Your task to perform on an android device: toggle priority inbox in the gmail app Image 0: 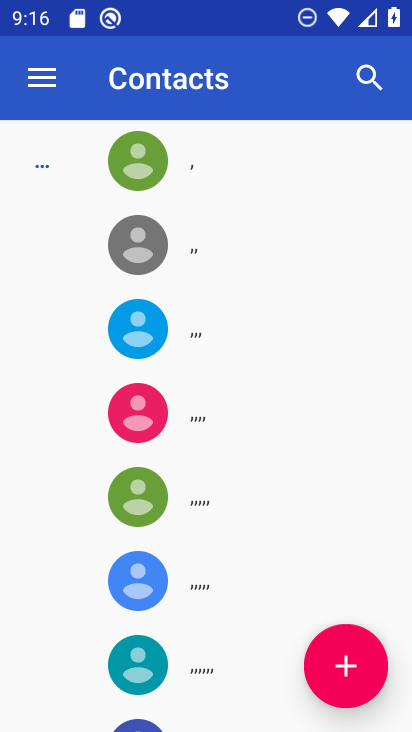
Step 0: press home button
Your task to perform on an android device: toggle priority inbox in the gmail app Image 1: 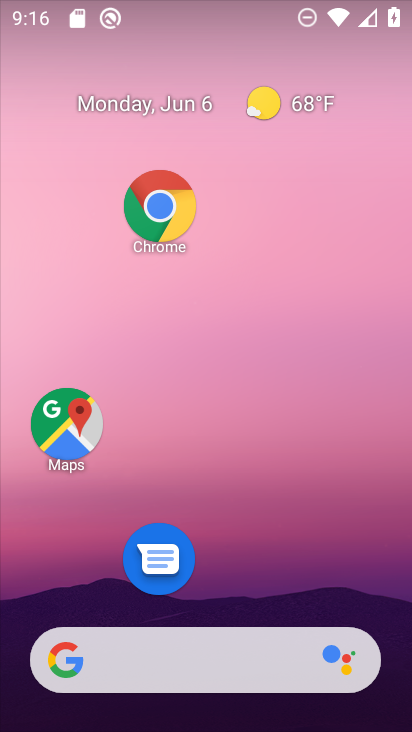
Step 1: drag from (246, 565) to (153, 118)
Your task to perform on an android device: toggle priority inbox in the gmail app Image 2: 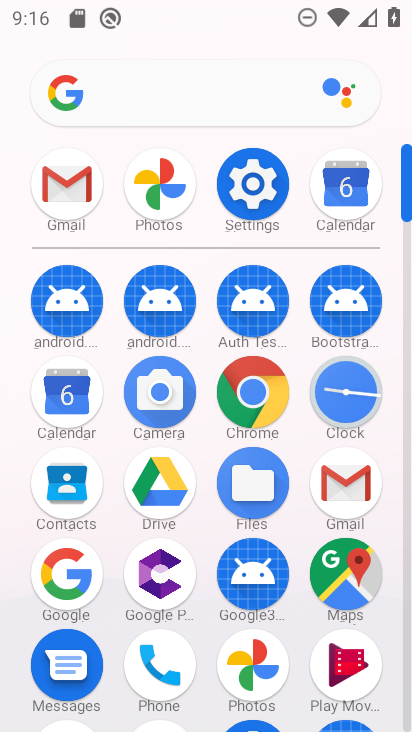
Step 2: click (345, 501)
Your task to perform on an android device: toggle priority inbox in the gmail app Image 3: 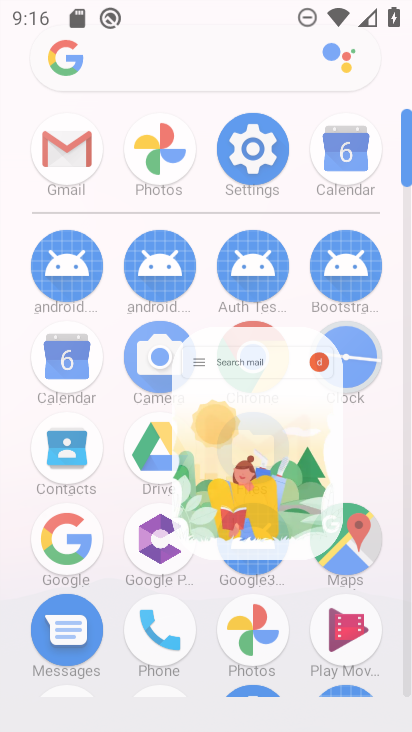
Step 3: click (350, 487)
Your task to perform on an android device: toggle priority inbox in the gmail app Image 4: 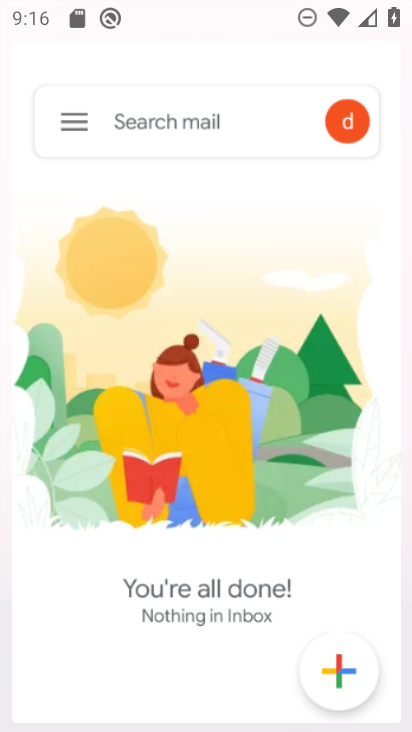
Step 4: click (350, 487)
Your task to perform on an android device: toggle priority inbox in the gmail app Image 5: 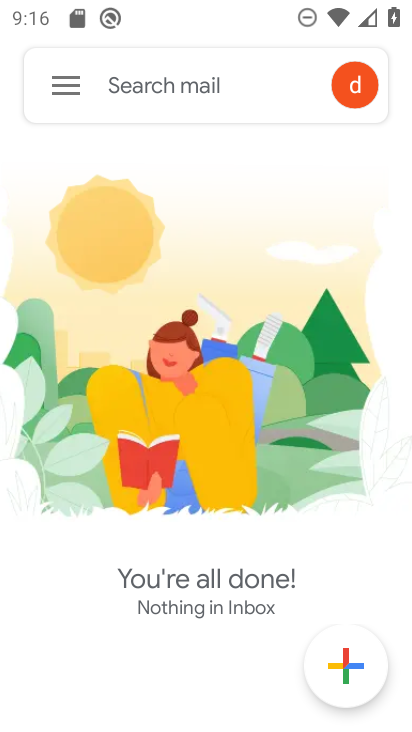
Step 5: click (351, 487)
Your task to perform on an android device: toggle priority inbox in the gmail app Image 6: 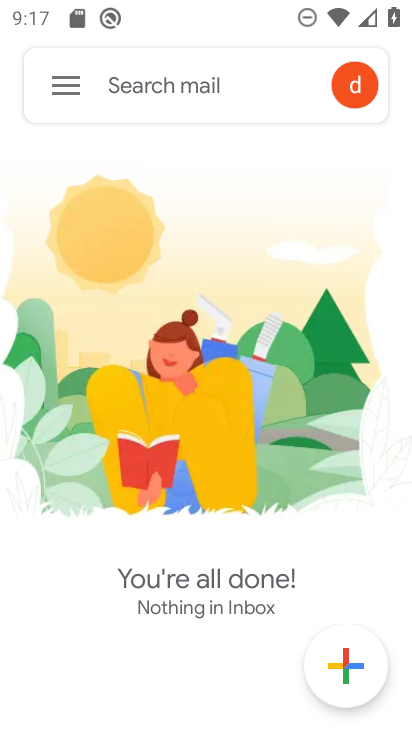
Step 6: click (72, 81)
Your task to perform on an android device: toggle priority inbox in the gmail app Image 7: 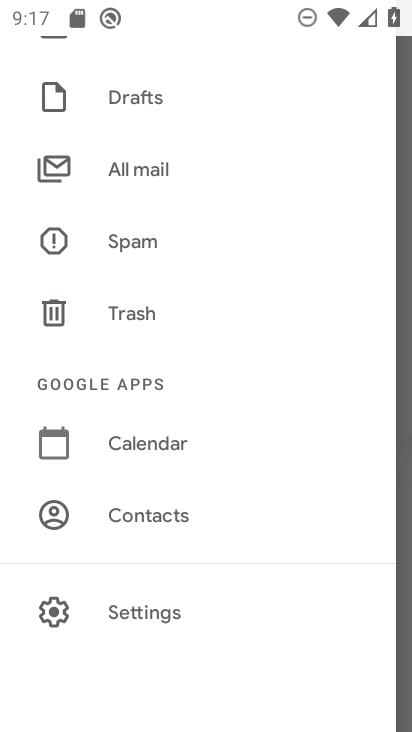
Step 7: click (136, 612)
Your task to perform on an android device: toggle priority inbox in the gmail app Image 8: 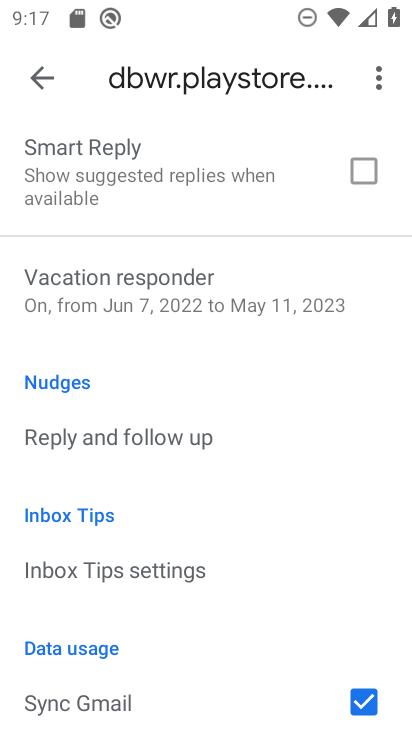
Step 8: drag from (123, 536) to (157, 202)
Your task to perform on an android device: toggle priority inbox in the gmail app Image 9: 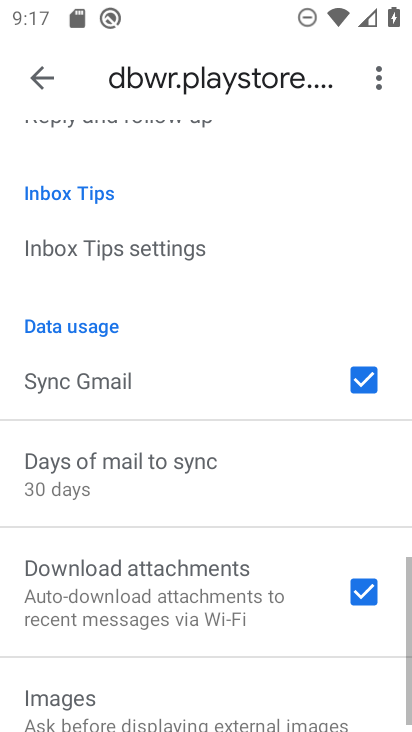
Step 9: drag from (153, 458) to (146, 242)
Your task to perform on an android device: toggle priority inbox in the gmail app Image 10: 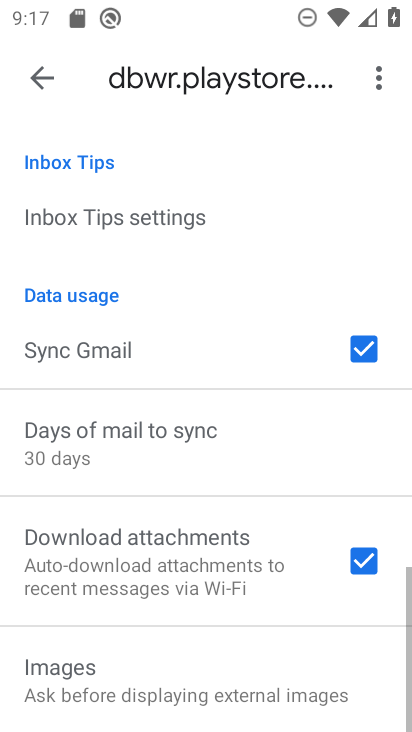
Step 10: drag from (146, 198) to (169, 563)
Your task to perform on an android device: toggle priority inbox in the gmail app Image 11: 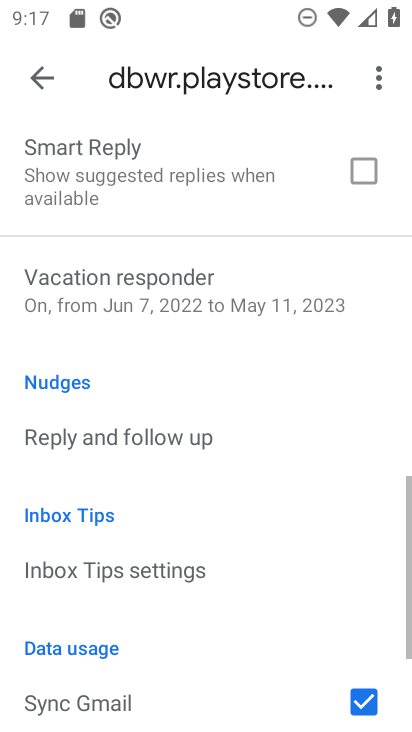
Step 11: drag from (152, 246) to (141, 533)
Your task to perform on an android device: toggle priority inbox in the gmail app Image 12: 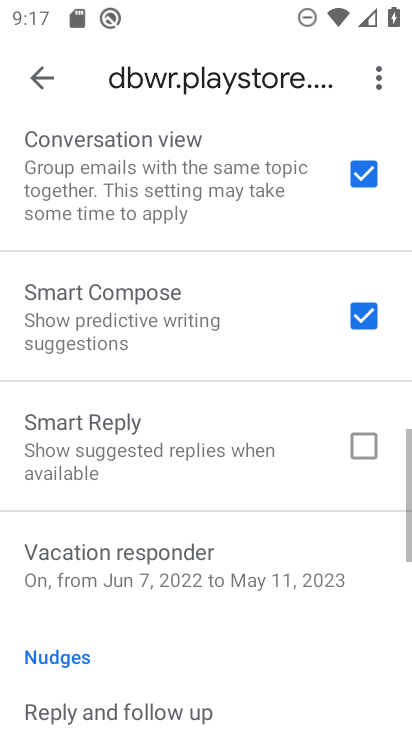
Step 12: drag from (133, 324) to (133, 616)
Your task to perform on an android device: toggle priority inbox in the gmail app Image 13: 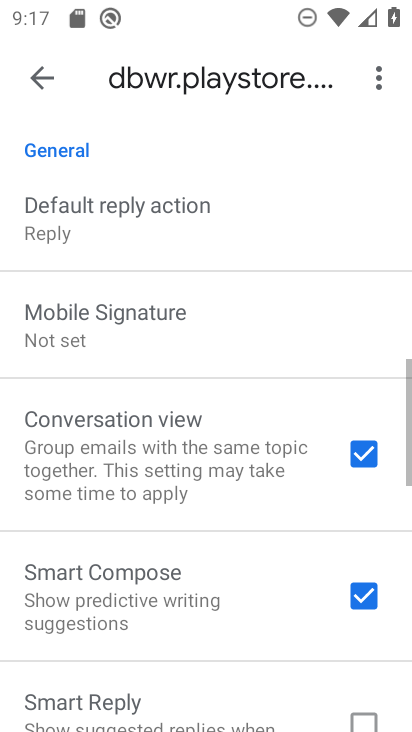
Step 13: drag from (147, 289) to (145, 600)
Your task to perform on an android device: toggle priority inbox in the gmail app Image 14: 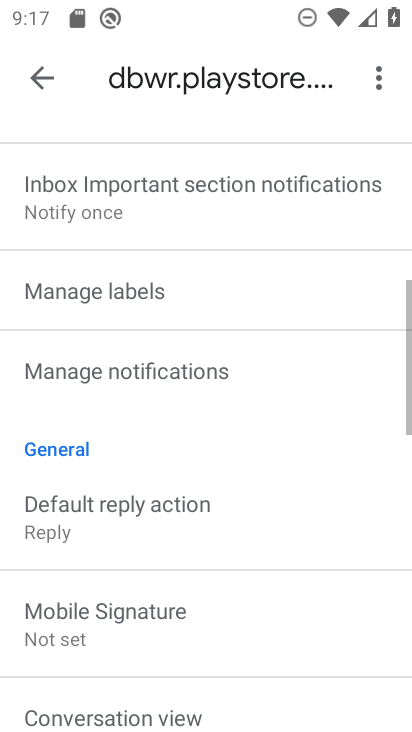
Step 14: drag from (145, 491) to (141, 640)
Your task to perform on an android device: toggle priority inbox in the gmail app Image 15: 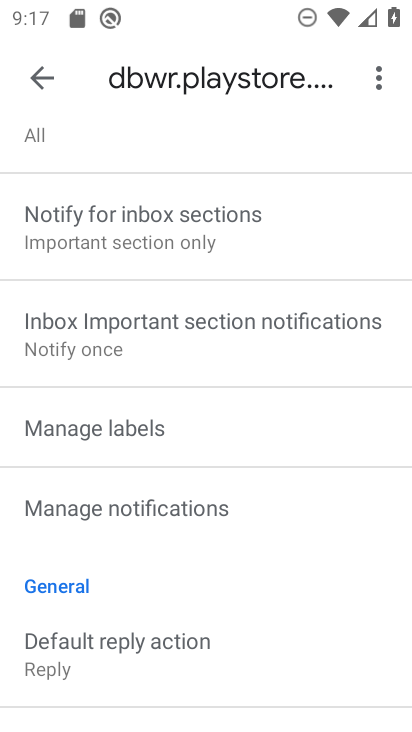
Step 15: drag from (109, 257) to (160, 566)
Your task to perform on an android device: toggle priority inbox in the gmail app Image 16: 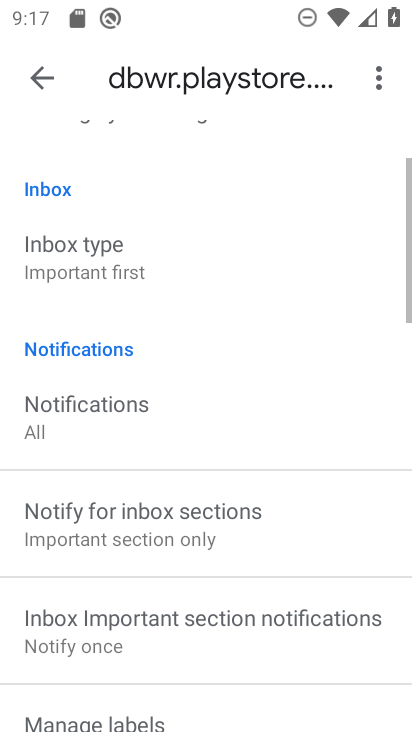
Step 16: drag from (122, 235) to (199, 636)
Your task to perform on an android device: toggle priority inbox in the gmail app Image 17: 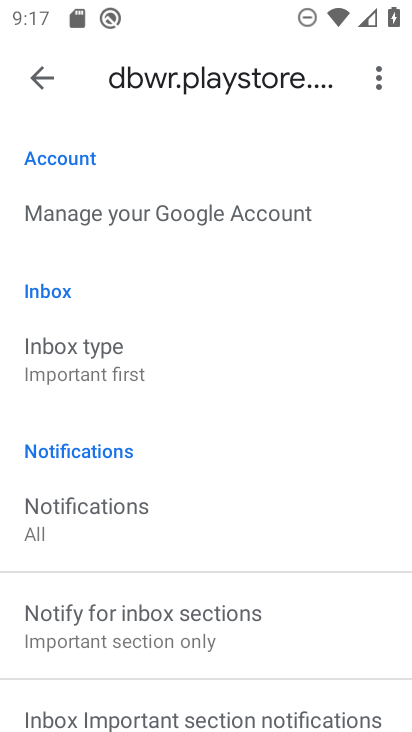
Step 17: click (90, 355)
Your task to perform on an android device: toggle priority inbox in the gmail app Image 18: 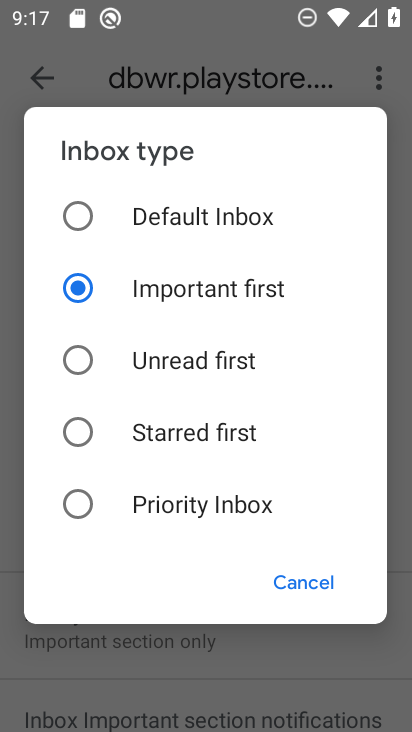
Step 18: click (94, 500)
Your task to perform on an android device: toggle priority inbox in the gmail app Image 19: 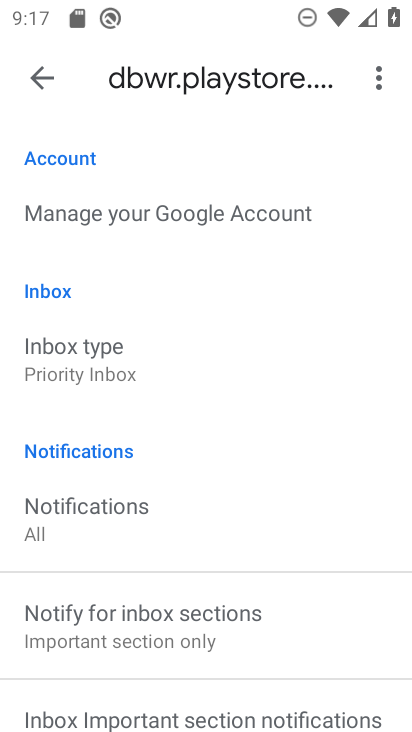
Step 19: task complete